Your task to perform on an android device: set the timer Image 0: 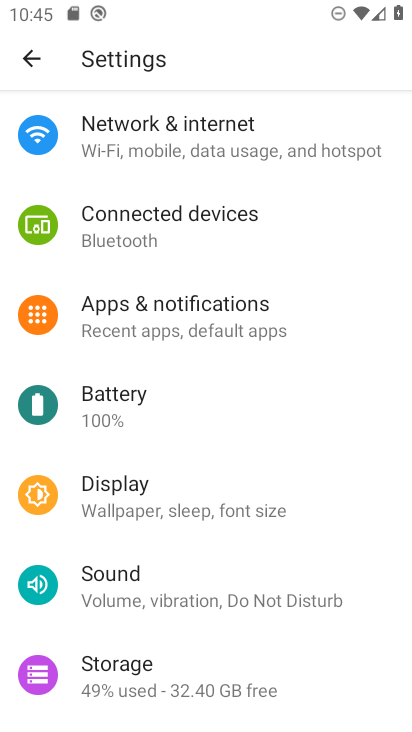
Step 0: press home button
Your task to perform on an android device: set the timer Image 1: 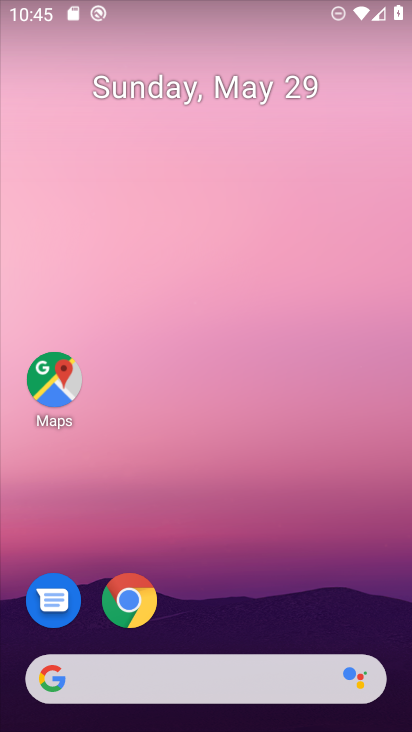
Step 1: drag from (201, 729) to (204, 148)
Your task to perform on an android device: set the timer Image 2: 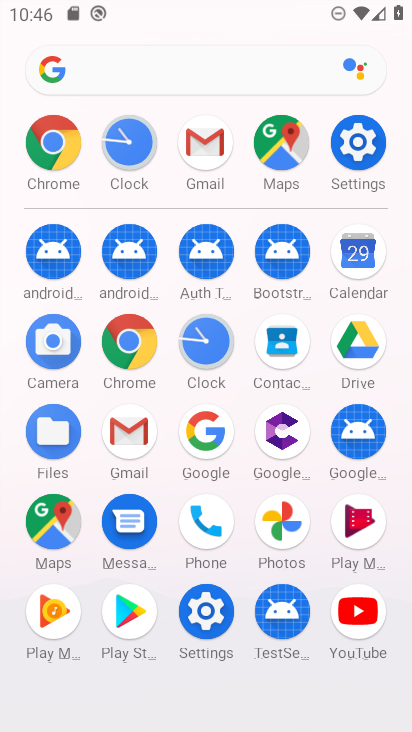
Step 2: click (216, 336)
Your task to perform on an android device: set the timer Image 3: 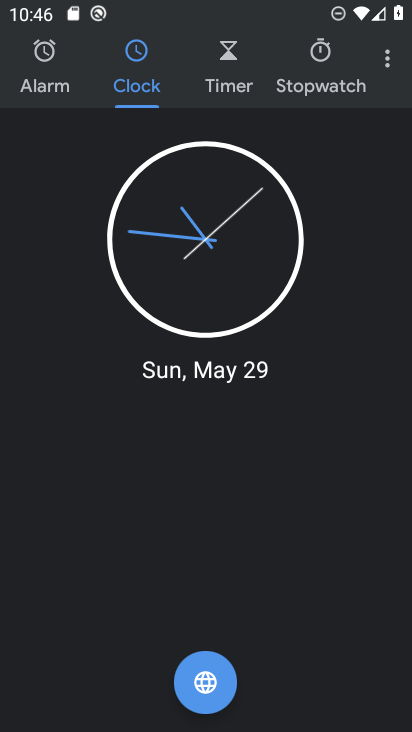
Step 3: click (223, 69)
Your task to perform on an android device: set the timer Image 4: 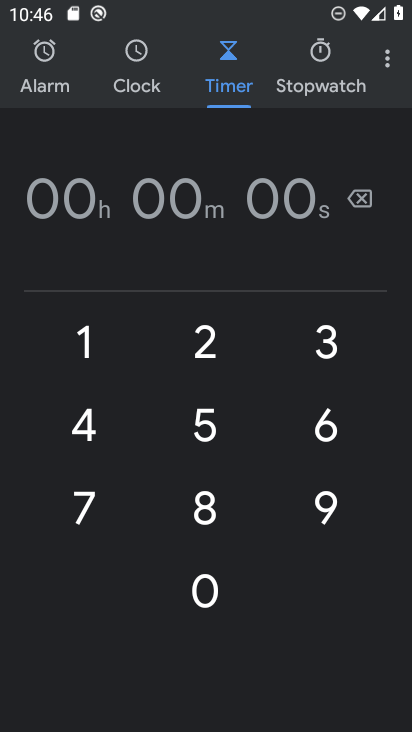
Step 4: click (205, 333)
Your task to perform on an android device: set the timer Image 5: 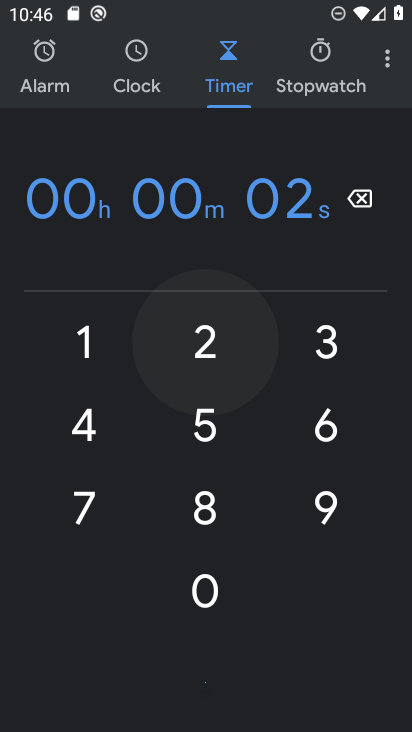
Step 5: click (207, 424)
Your task to perform on an android device: set the timer Image 6: 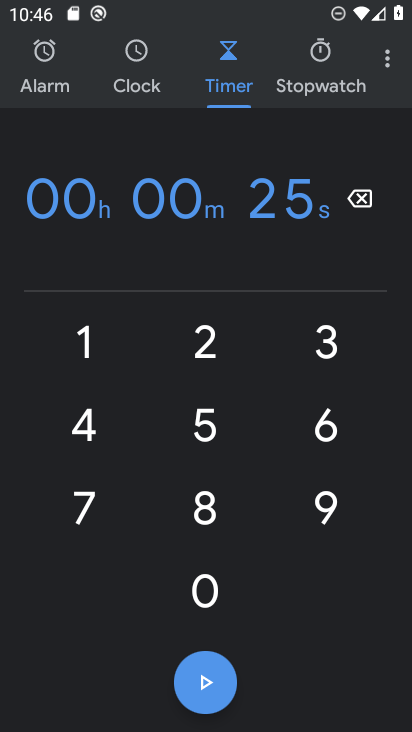
Step 6: click (200, 495)
Your task to perform on an android device: set the timer Image 7: 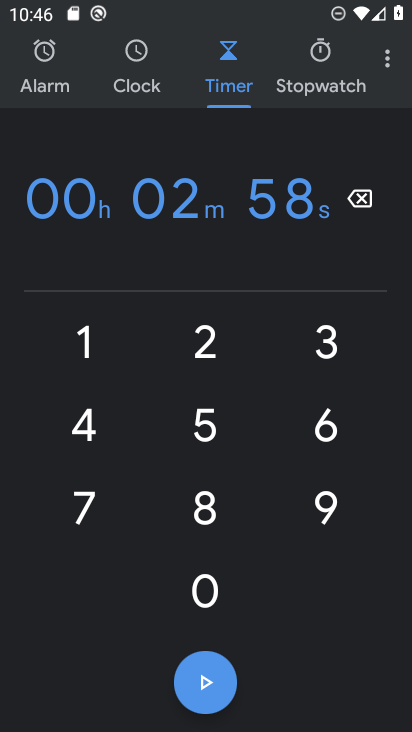
Step 7: click (91, 423)
Your task to perform on an android device: set the timer Image 8: 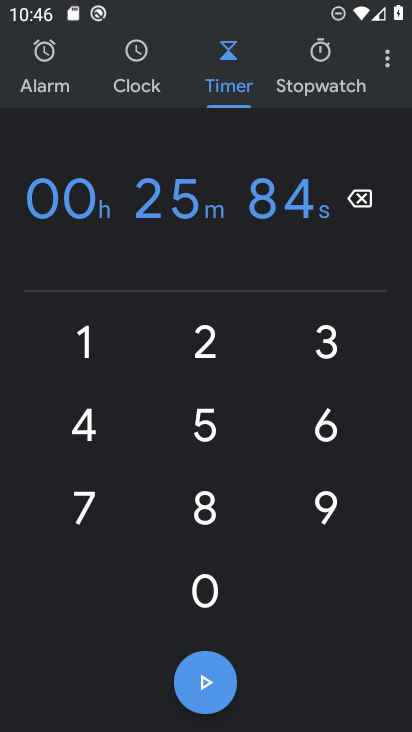
Step 8: click (207, 692)
Your task to perform on an android device: set the timer Image 9: 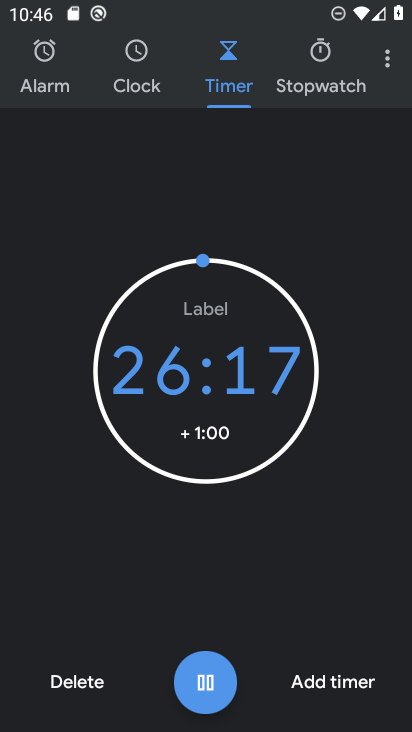
Step 9: task complete